Your task to perform on an android device: Search for good Thai restaurants Image 0: 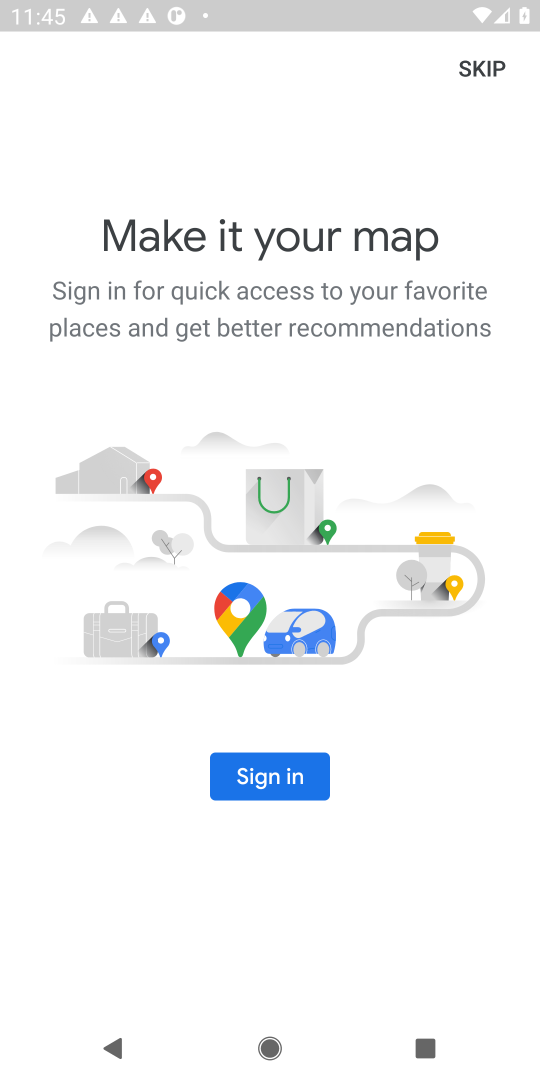
Step 0: press home button
Your task to perform on an android device: Search for good Thai restaurants Image 1: 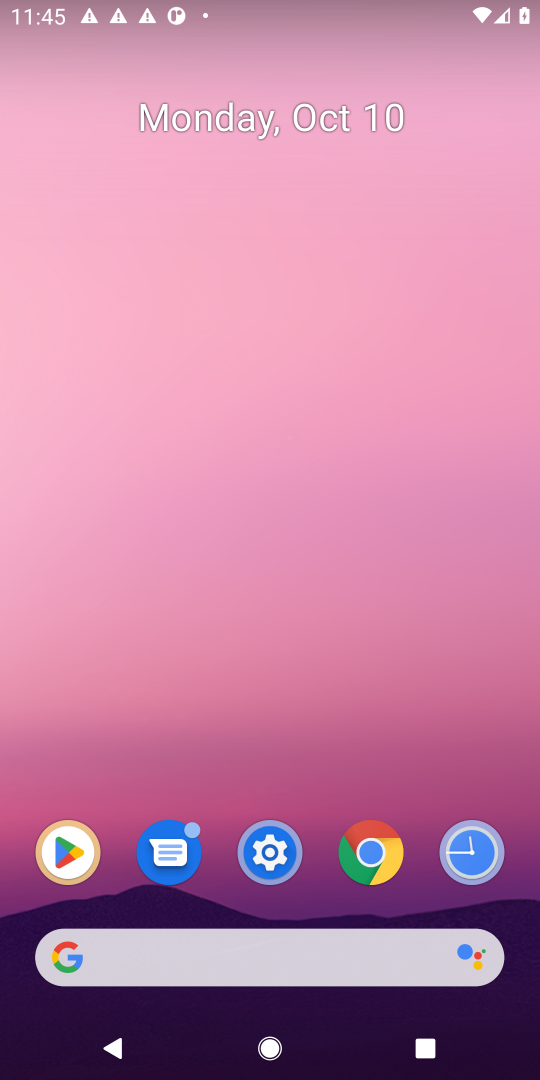
Step 1: click (381, 848)
Your task to perform on an android device: Search for good Thai restaurants Image 2: 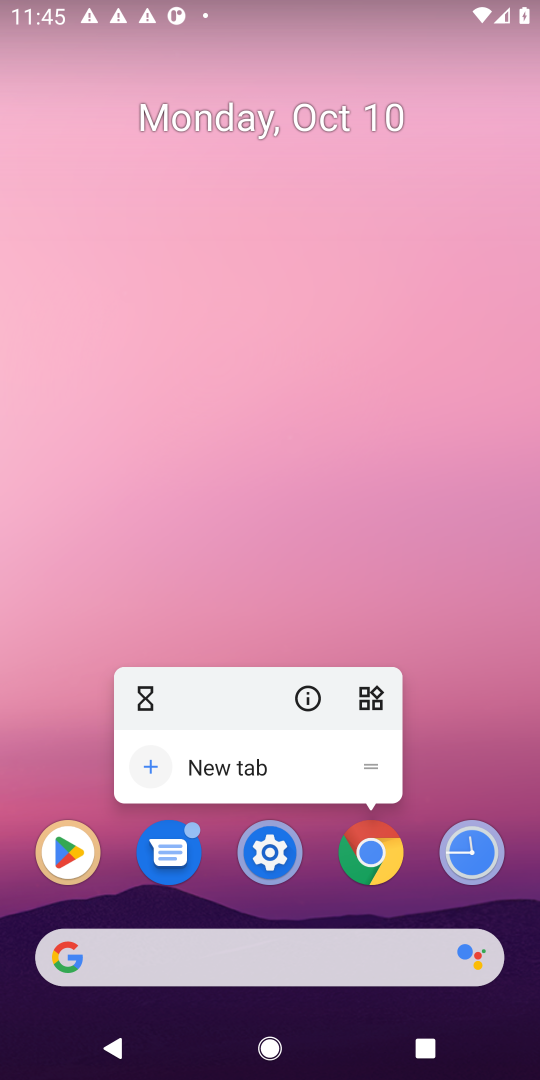
Step 2: click (381, 848)
Your task to perform on an android device: Search for good Thai restaurants Image 3: 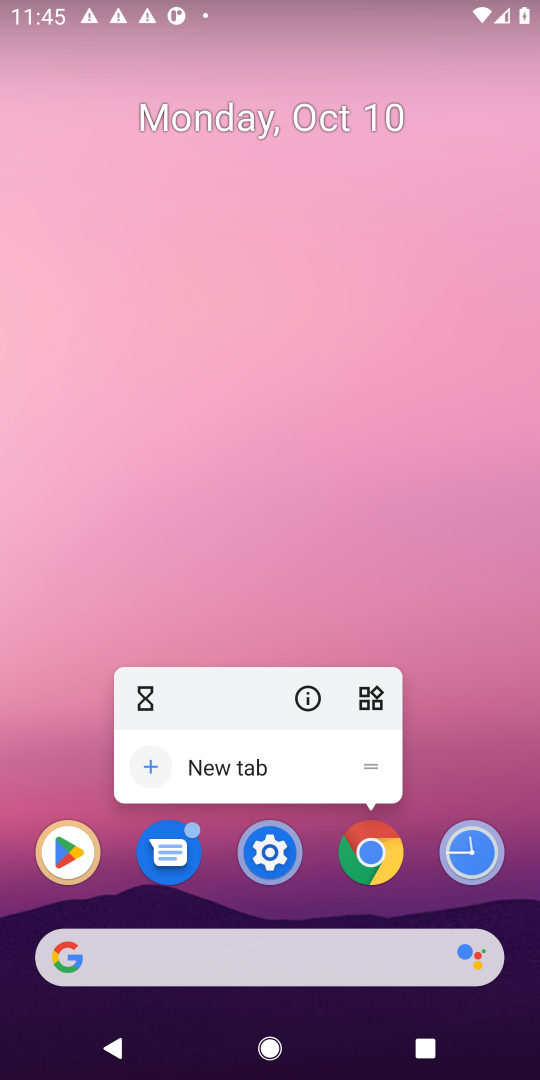
Step 3: click (373, 856)
Your task to perform on an android device: Search for good Thai restaurants Image 4: 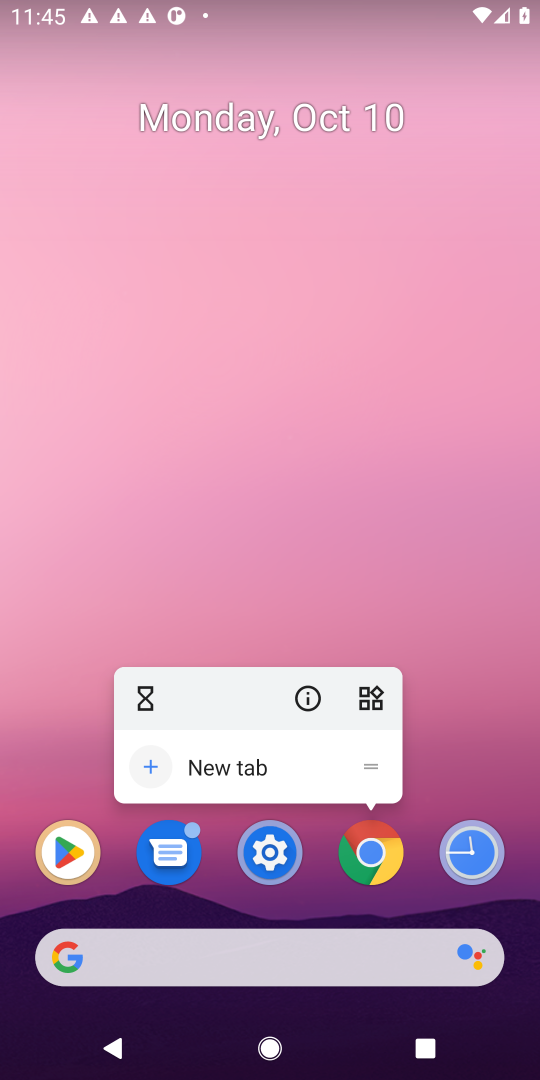
Step 4: click (373, 856)
Your task to perform on an android device: Search for good Thai restaurants Image 5: 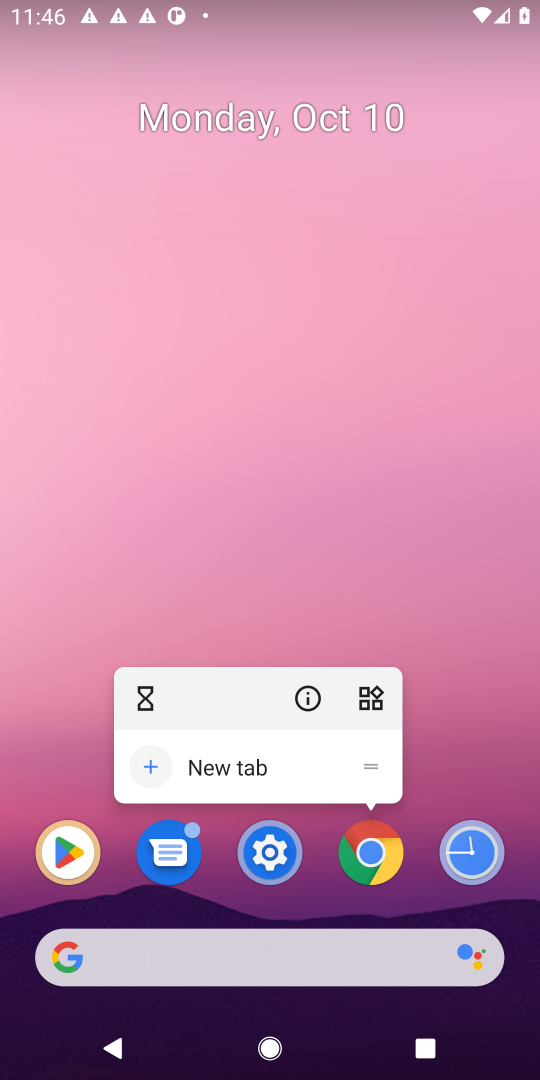
Step 5: click (373, 856)
Your task to perform on an android device: Search for good Thai restaurants Image 6: 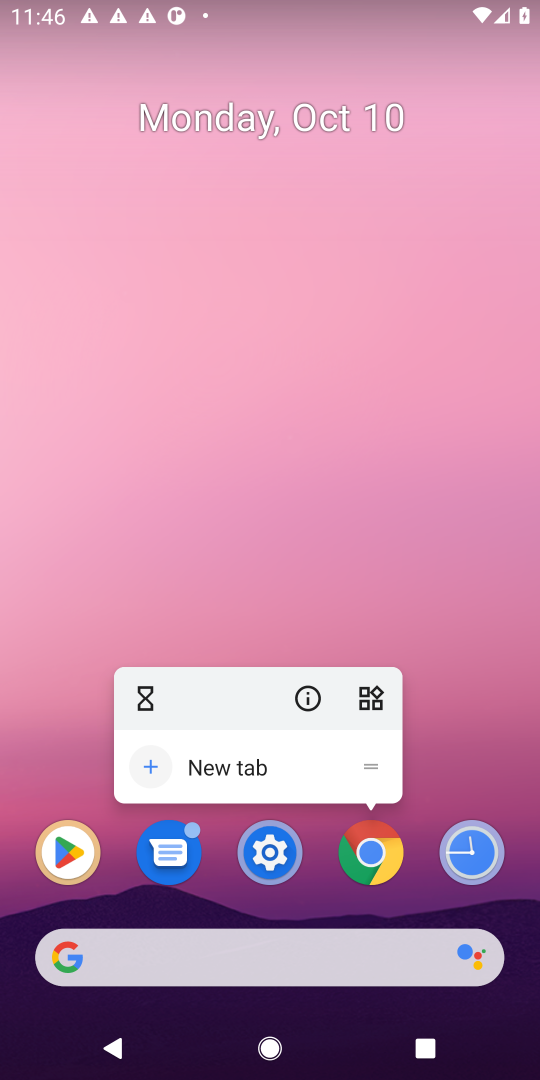
Step 6: click (373, 856)
Your task to perform on an android device: Search for good Thai restaurants Image 7: 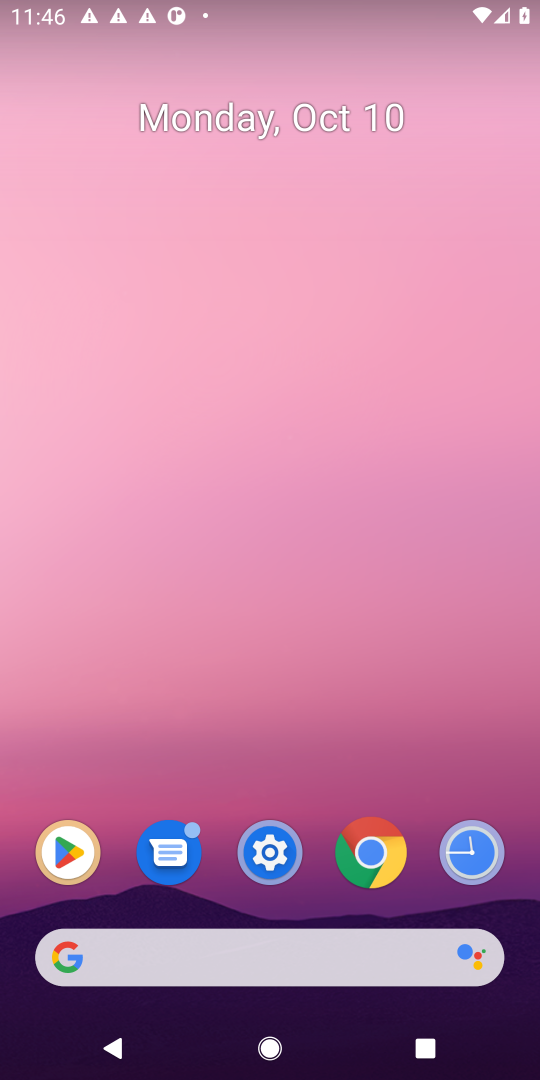
Step 7: click (373, 856)
Your task to perform on an android device: Search for good Thai restaurants Image 8: 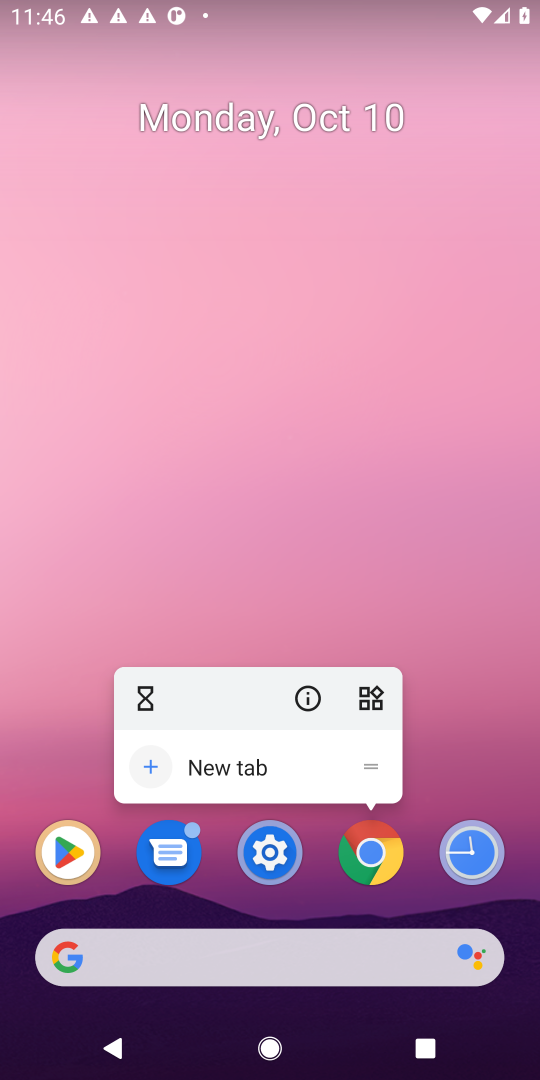
Step 8: click (373, 856)
Your task to perform on an android device: Search for good Thai restaurants Image 9: 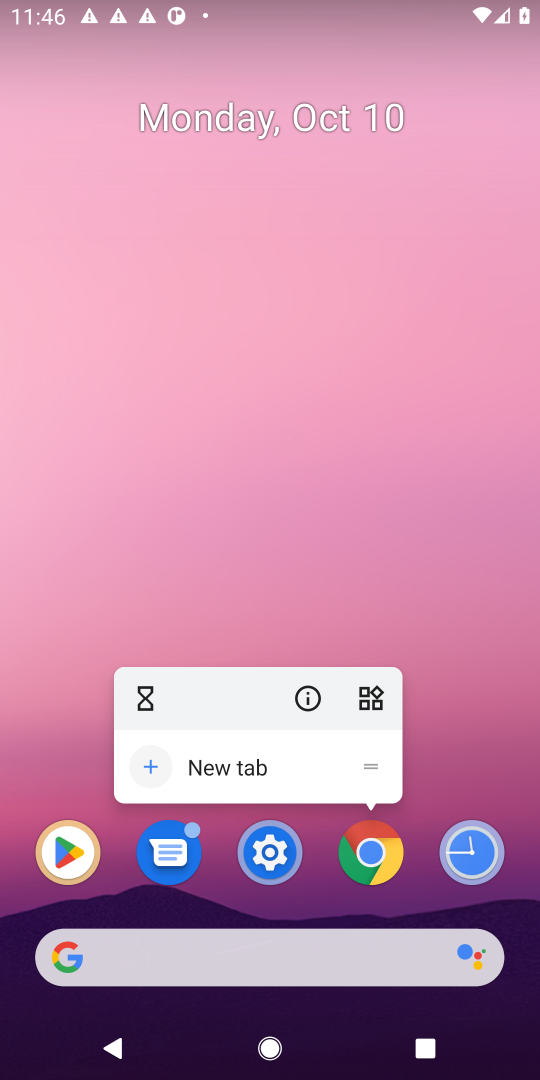
Step 9: click (373, 856)
Your task to perform on an android device: Search for good Thai restaurants Image 10: 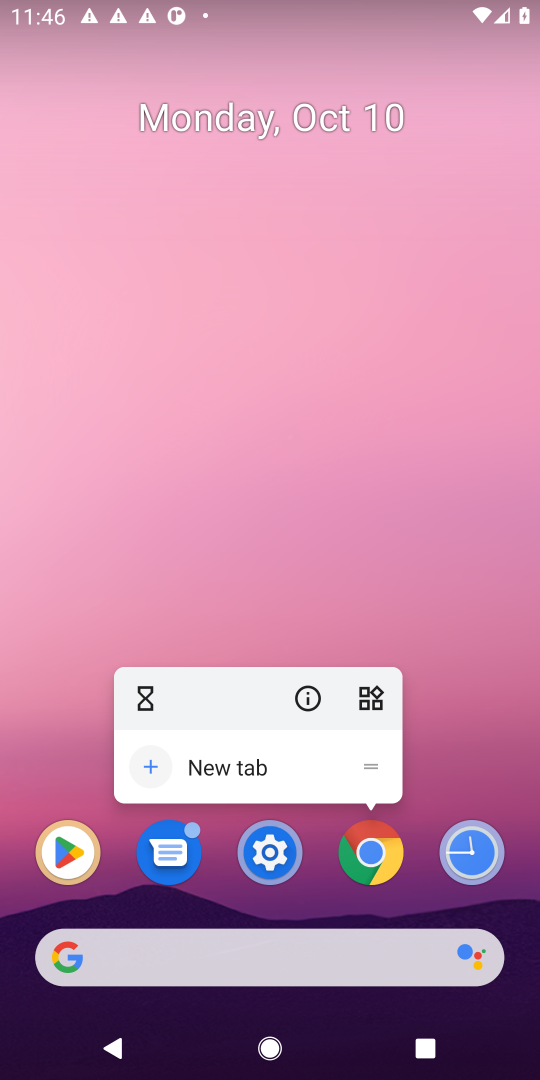
Step 10: click (373, 856)
Your task to perform on an android device: Search for good Thai restaurants Image 11: 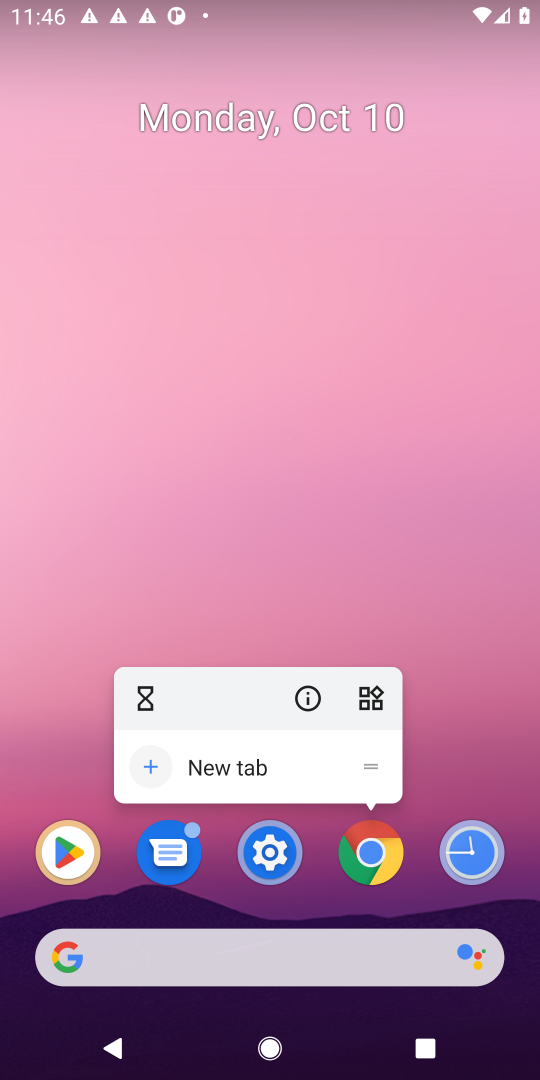
Step 11: click (373, 856)
Your task to perform on an android device: Search for good Thai restaurants Image 12: 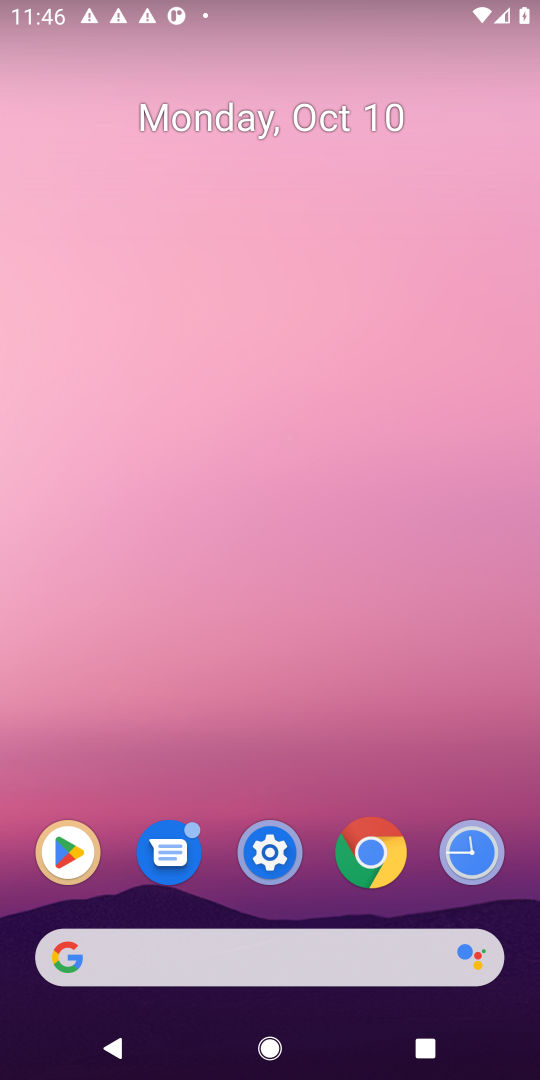
Step 12: click (373, 856)
Your task to perform on an android device: Search for good Thai restaurants Image 13: 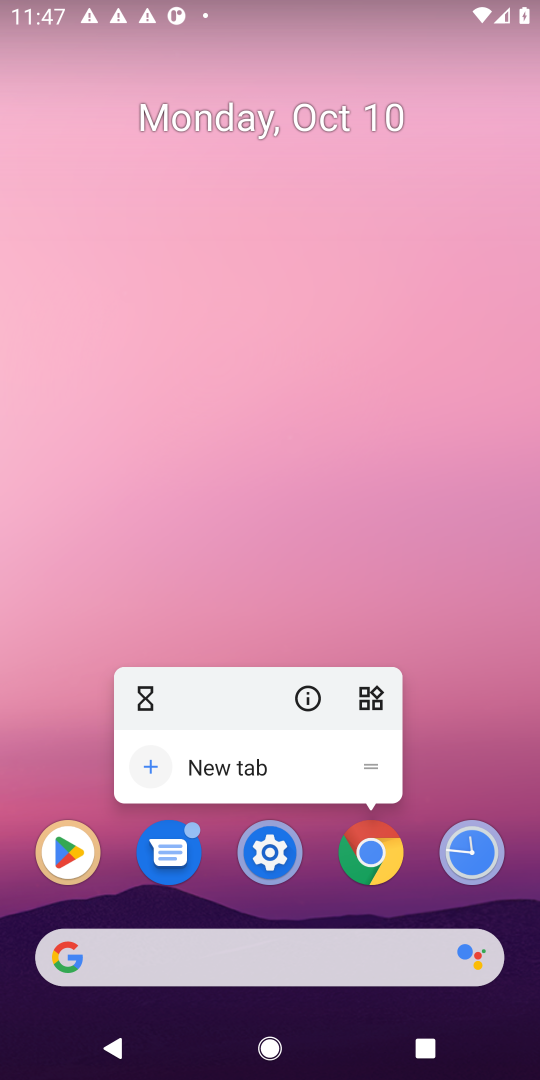
Step 13: click (369, 874)
Your task to perform on an android device: Search for good Thai restaurants Image 14: 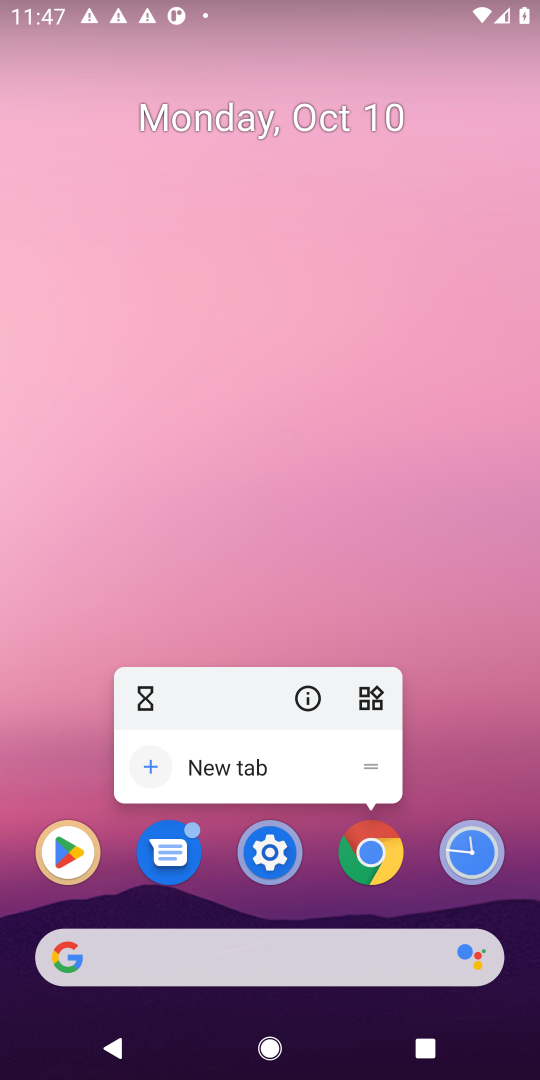
Step 14: click (377, 837)
Your task to perform on an android device: Search for good Thai restaurants Image 15: 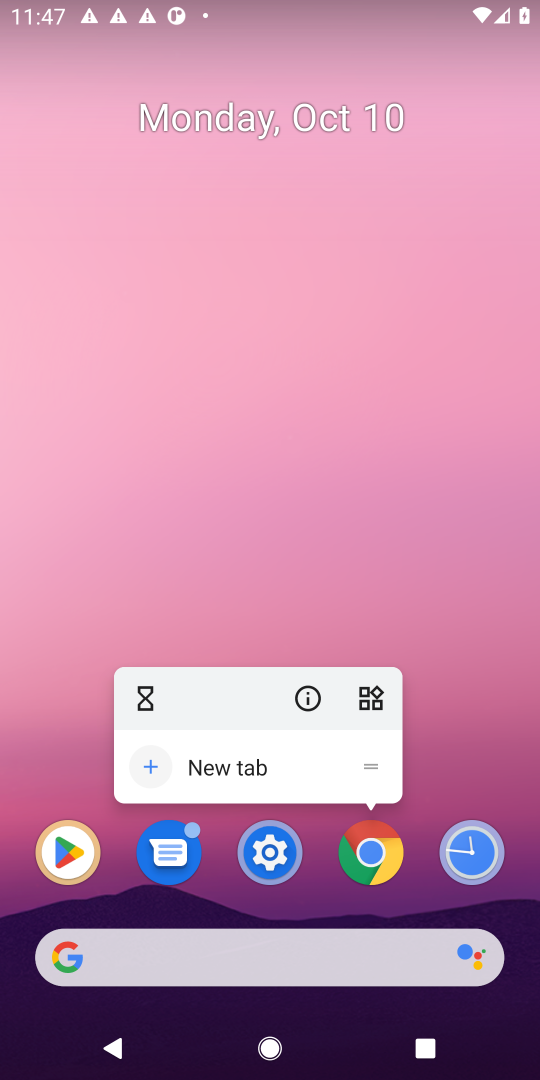
Step 15: click (376, 840)
Your task to perform on an android device: Search for good Thai restaurants Image 16: 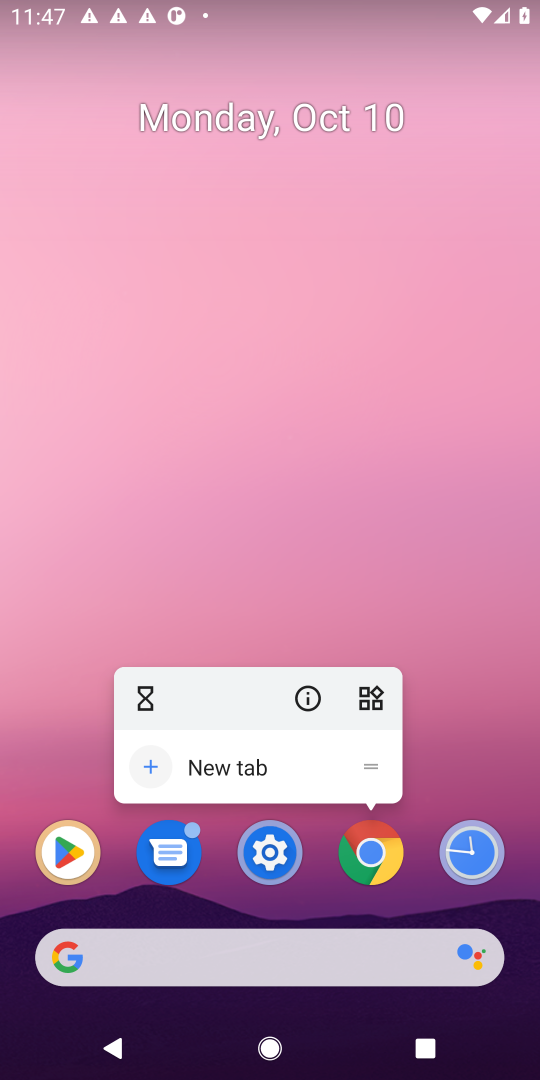
Step 16: click (365, 834)
Your task to perform on an android device: Search for good Thai restaurants Image 17: 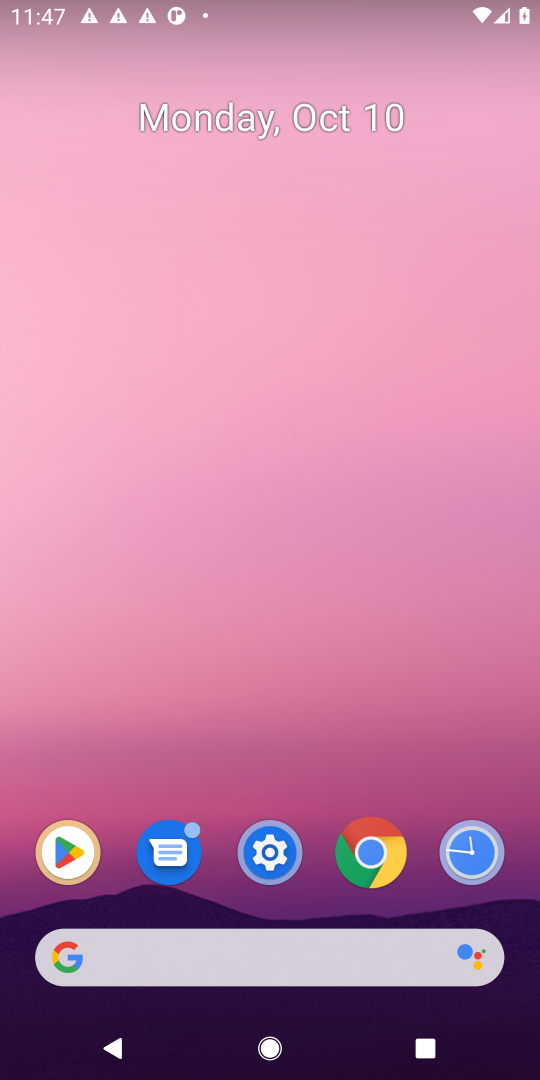
Step 17: click (365, 834)
Your task to perform on an android device: Search for good Thai restaurants Image 18: 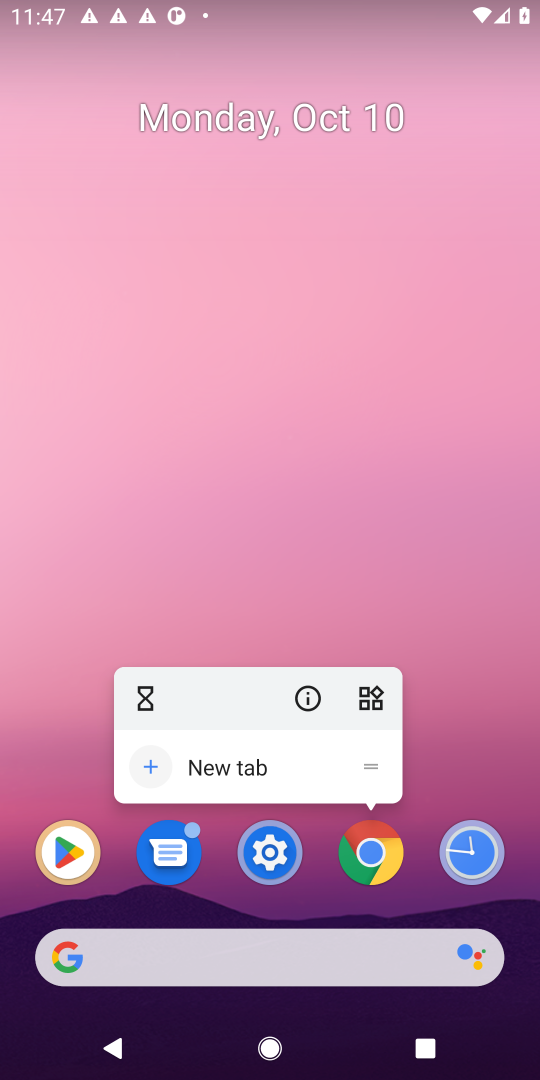
Step 18: click (359, 842)
Your task to perform on an android device: Search for good Thai restaurants Image 19: 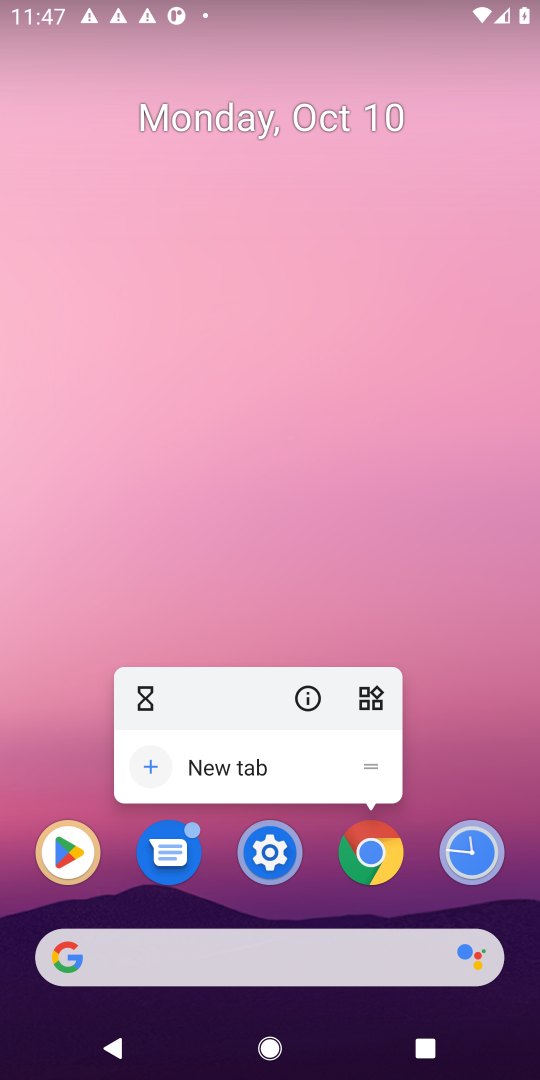
Step 19: click (359, 842)
Your task to perform on an android device: Search for good Thai restaurants Image 20: 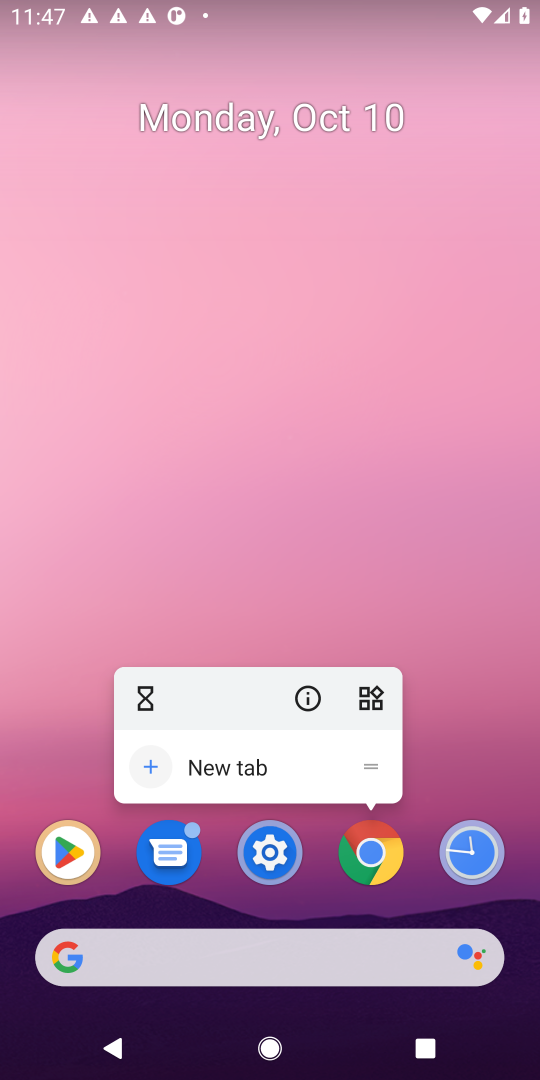
Step 20: click (359, 842)
Your task to perform on an android device: Search for good Thai restaurants Image 21: 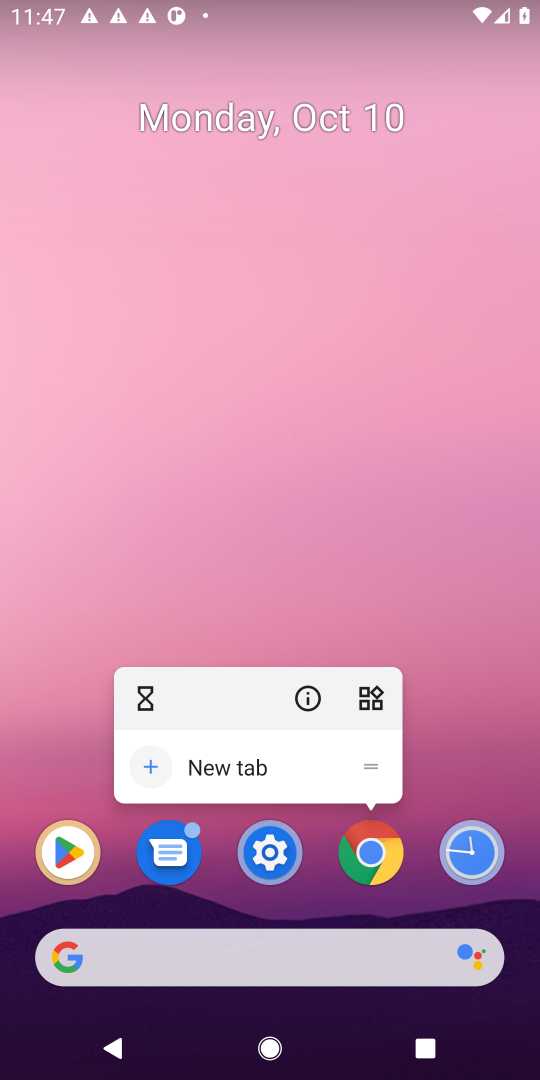
Step 21: click (395, 857)
Your task to perform on an android device: Search for good Thai restaurants Image 22: 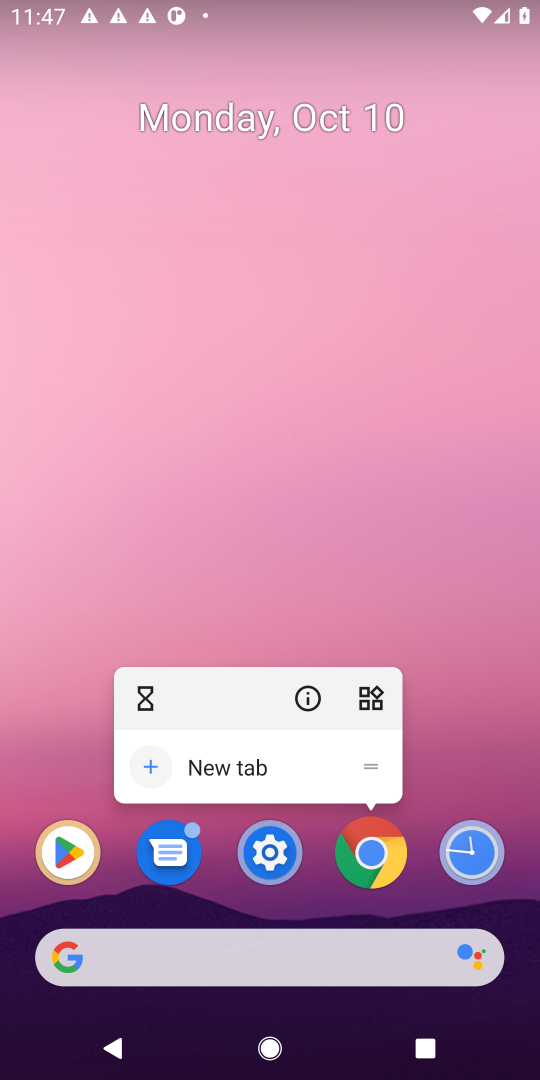
Step 22: click (395, 857)
Your task to perform on an android device: Search for good Thai restaurants Image 23: 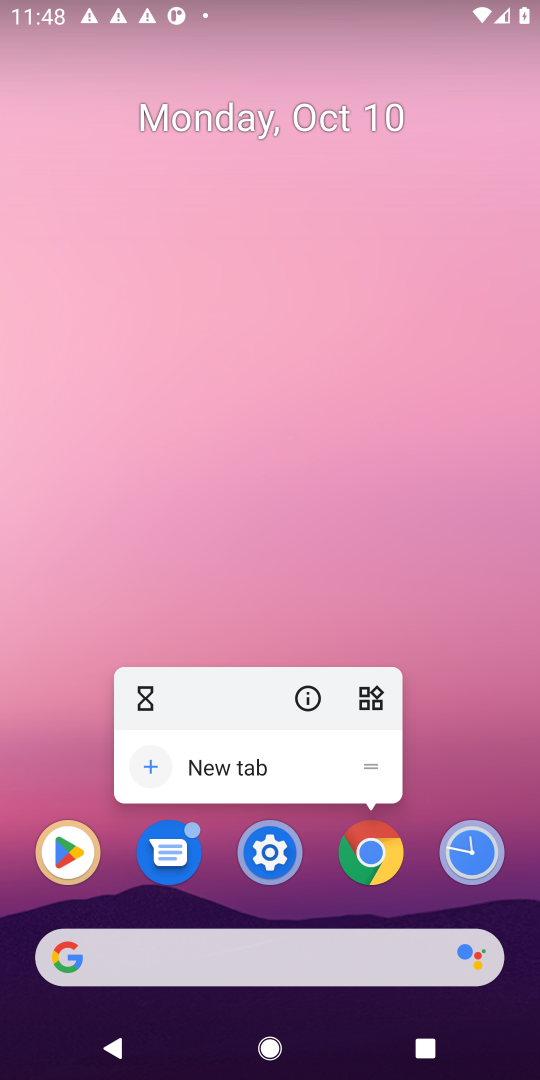
Step 23: click (362, 865)
Your task to perform on an android device: Search for good Thai restaurants Image 24: 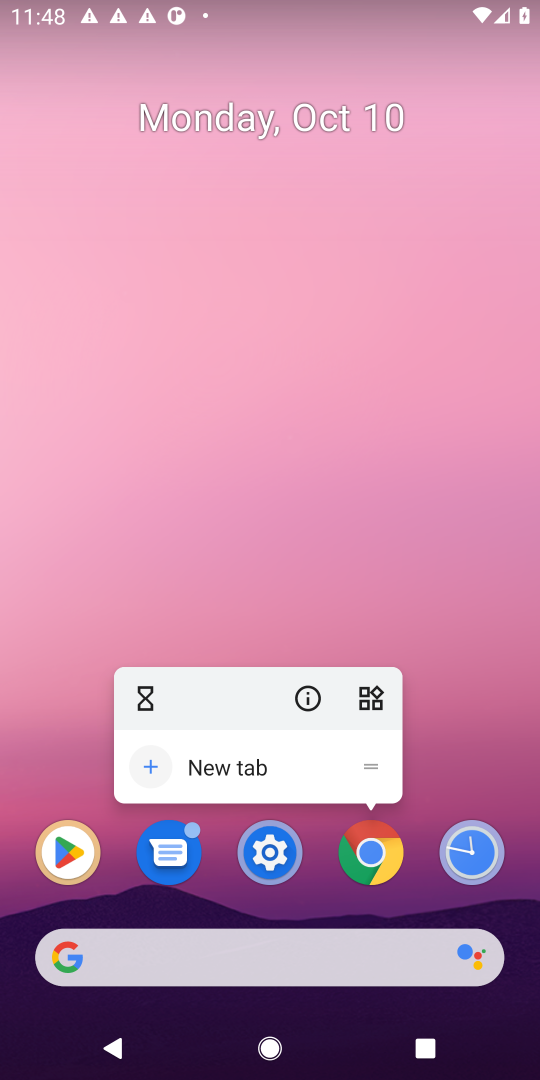
Step 24: click (362, 865)
Your task to perform on an android device: Search for good Thai restaurants Image 25: 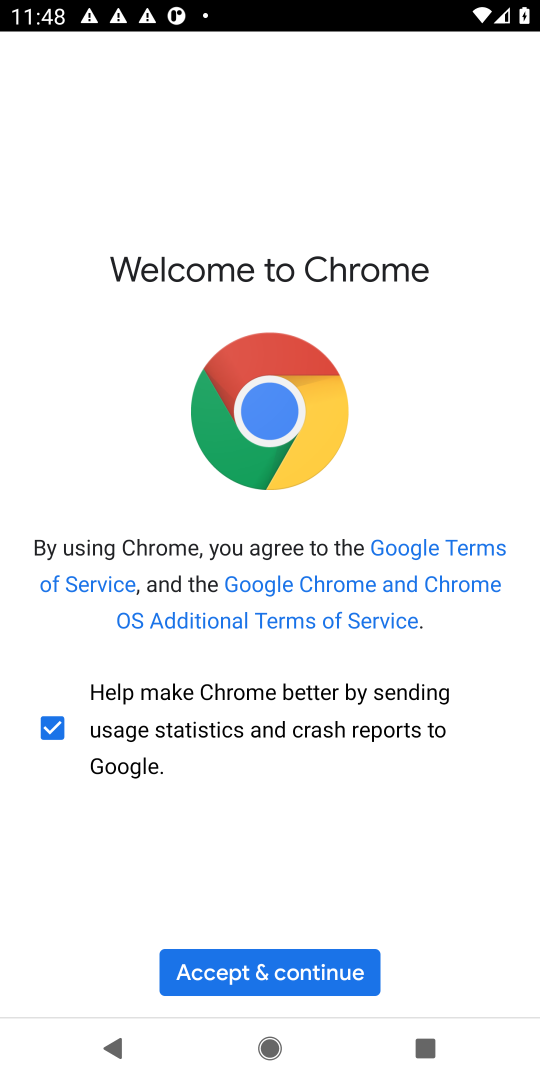
Step 25: click (257, 976)
Your task to perform on an android device: Search for good Thai restaurants Image 26: 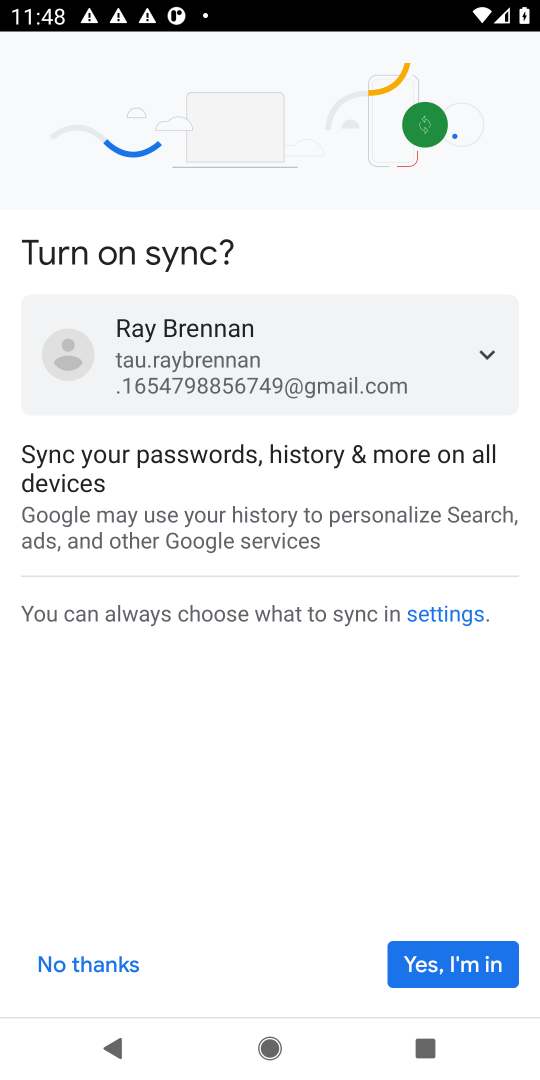
Step 26: click (441, 963)
Your task to perform on an android device: Search for good Thai restaurants Image 27: 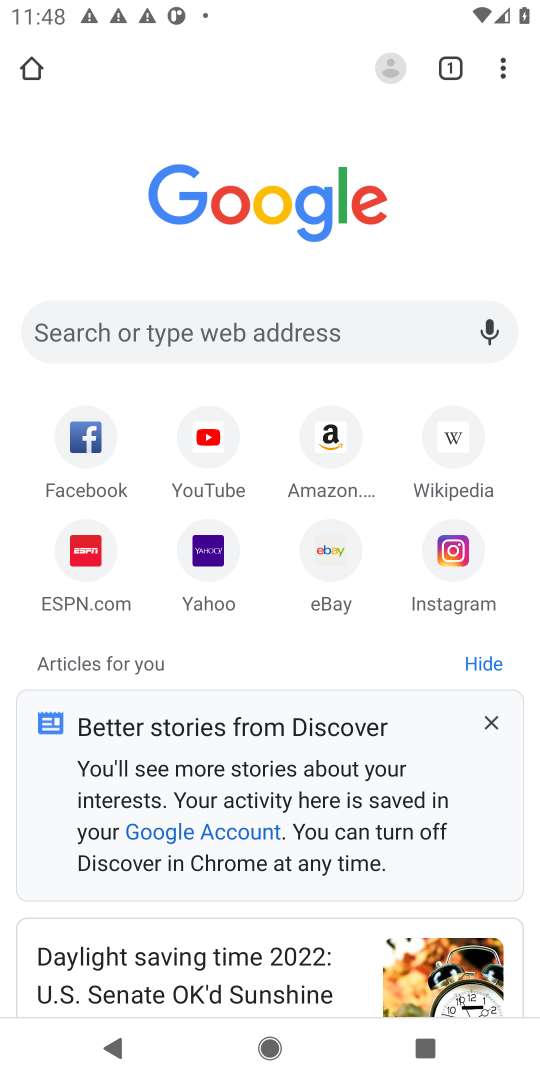
Step 27: click (378, 314)
Your task to perform on an android device: Search for good Thai restaurants Image 28: 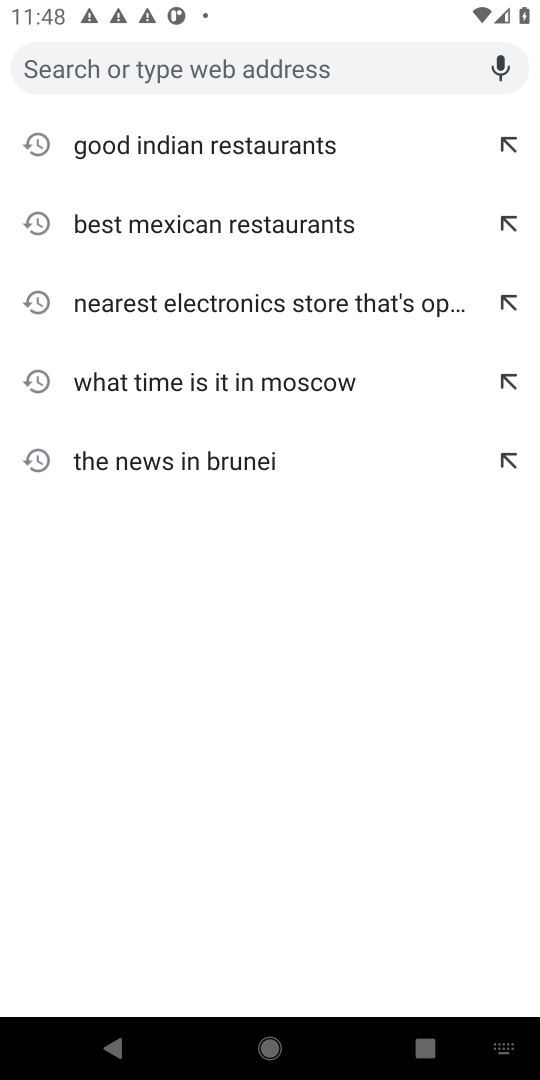
Step 28: type "Search for good Thai restaurants"
Your task to perform on an android device: Search for good Thai restaurants Image 29: 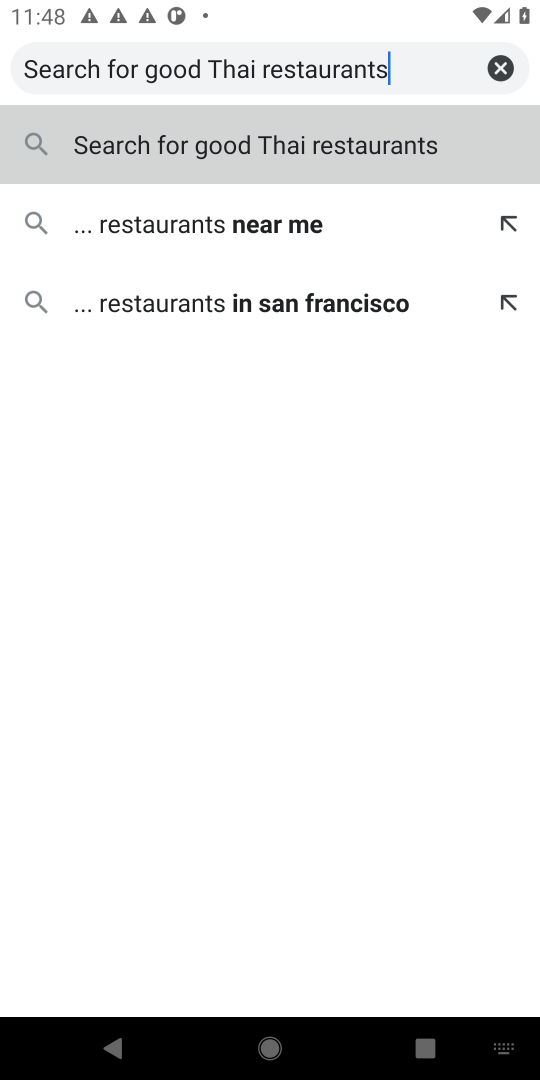
Step 29: click (333, 145)
Your task to perform on an android device: Search for good Thai restaurants Image 30: 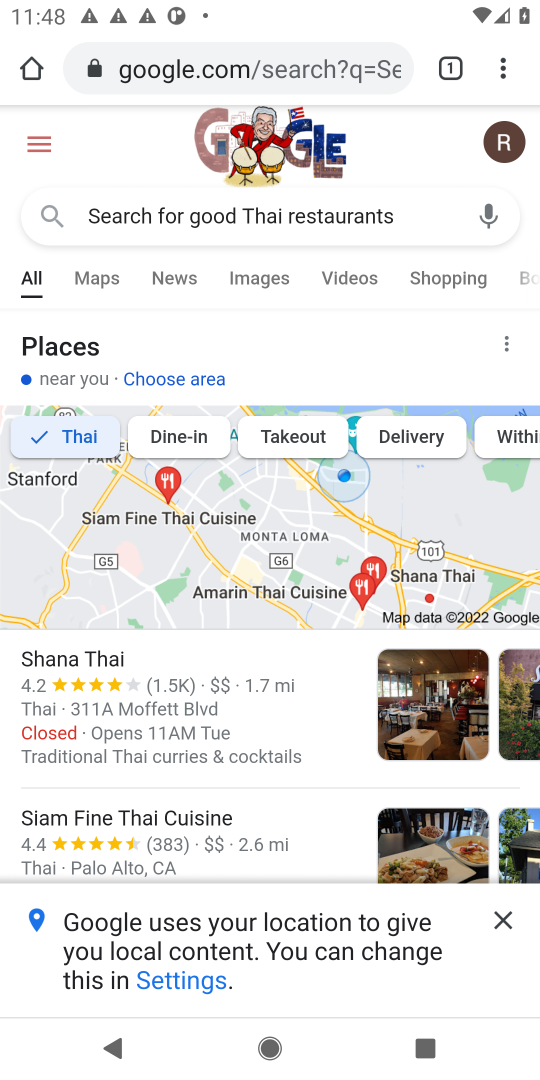
Step 30: task complete